Your task to perform on an android device: What's the weather? Image 0: 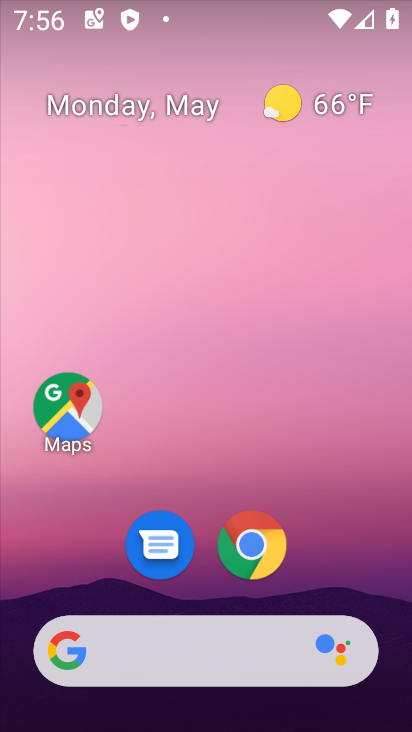
Step 0: click (295, 100)
Your task to perform on an android device: What's the weather? Image 1: 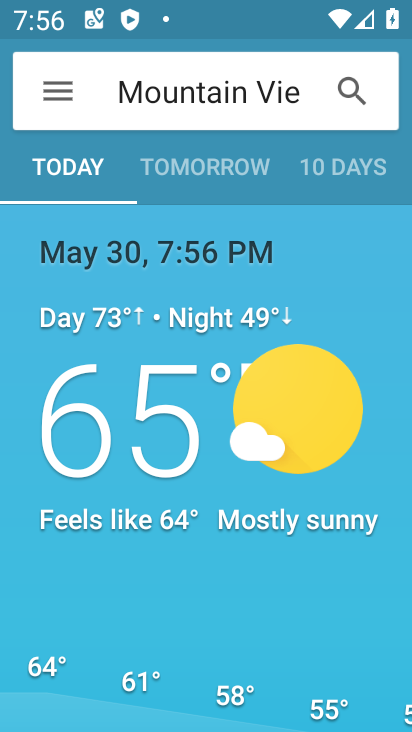
Step 1: task complete